Your task to perform on an android device: Turn on the flashlight Image 0: 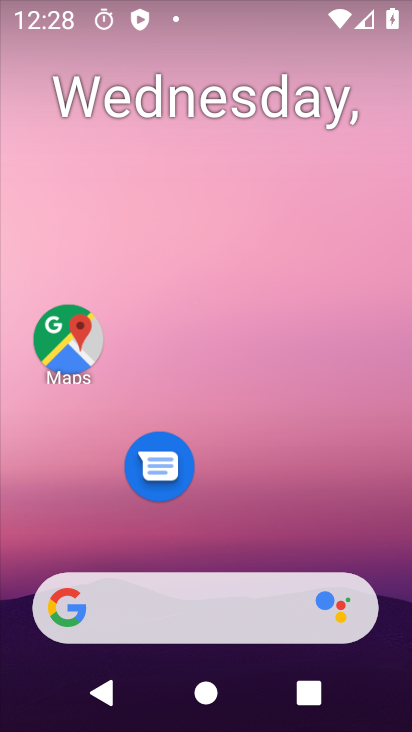
Step 0: drag from (348, 509) to (302, 157)
Your task to perform on an android device: Turn on the flashlight Image 1: 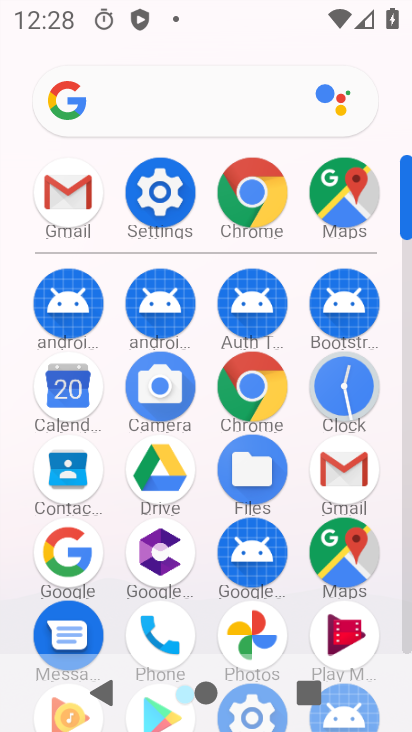
Step 1: click (171, 228)
Your task to perform on an android device: Turn on the flashlight Image 2: 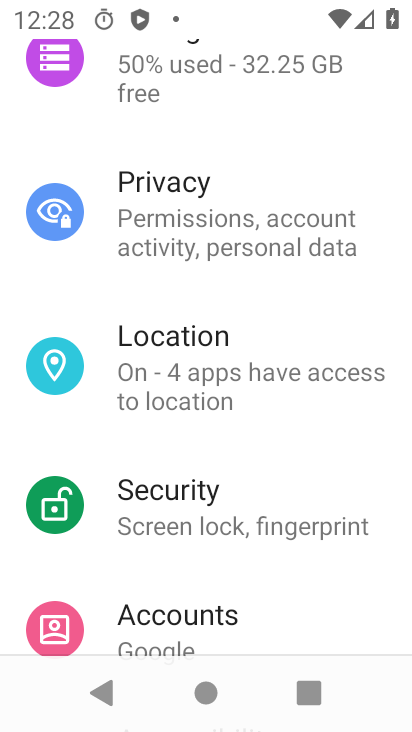
Step 2: click (210, 239)
Your task to perform on an android device: Turn on the flashlight Image 3: 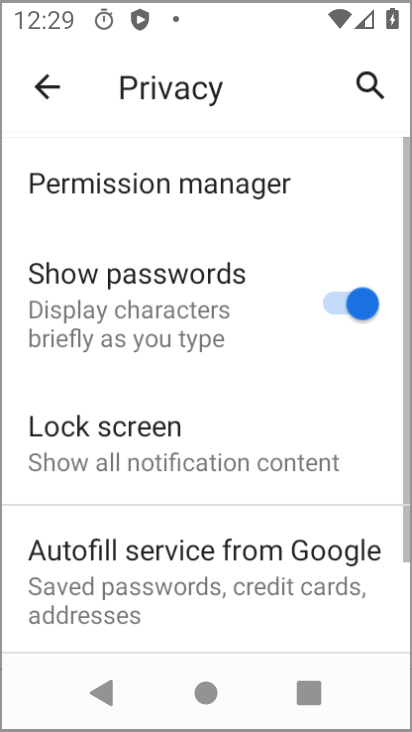
Step 3: task complete